Your task to perform on an android device: Go to CNN.com Image 0: 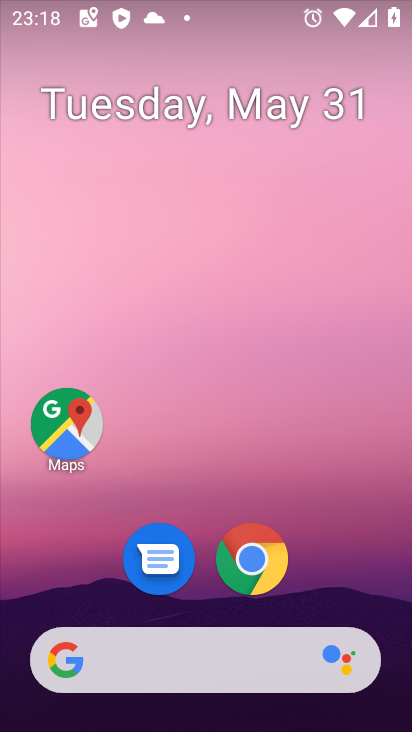
Step 0: drag from (308, 582) to (338, 38)
Your task to perform on an android device: Go to CNN.com Image 1: 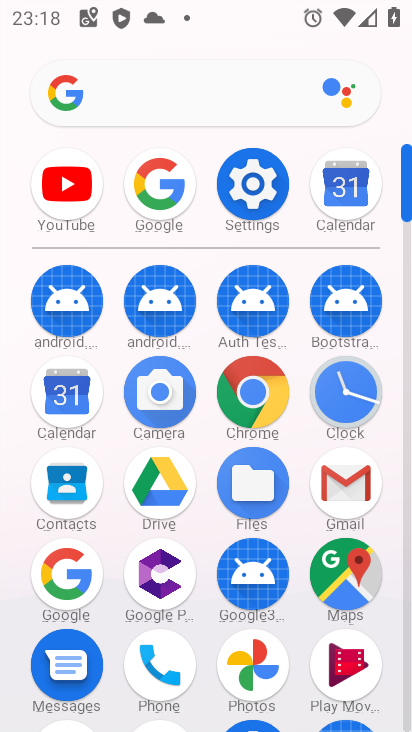
Step 1: click (164, 179)
Your task to perform on an android device: Go to CNN.com Image 2: 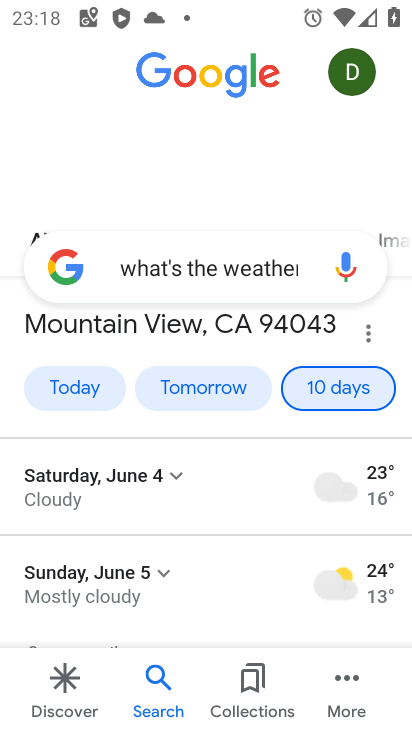
Step 2: click (277, 272)
Your task to perform on an android device: Go to CNN.com Image 3: 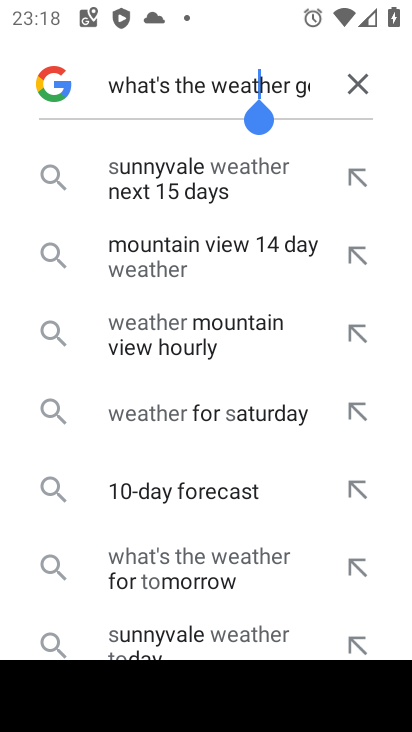
Step 3: click (352, 86)
Your task to perform on an android device: Go to CNN.com Image 4: 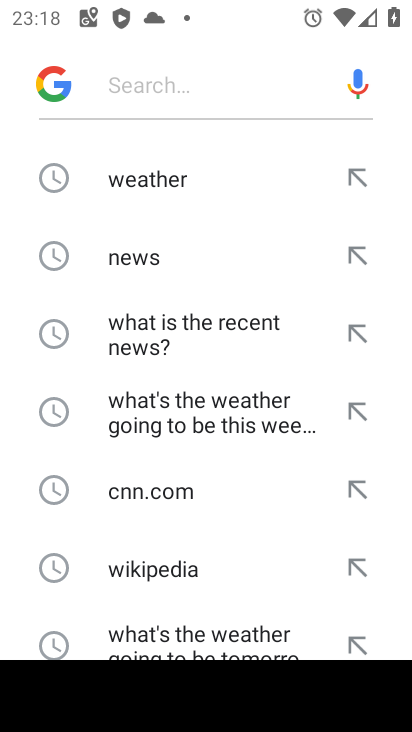
Step 4: click (163, 490)
Your task to perform on an android device: Go to CNN.com Image 5: 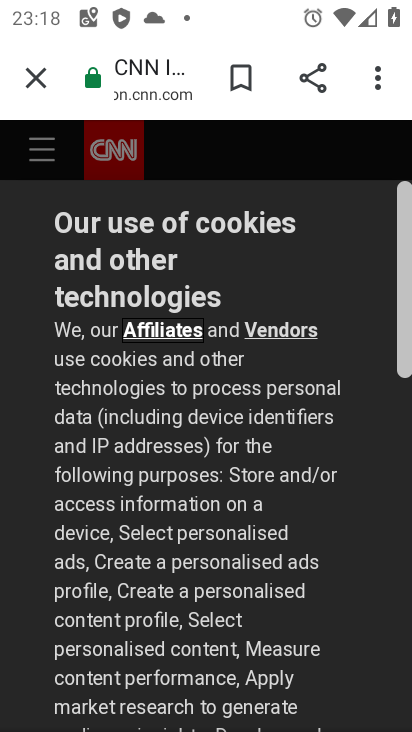
Step 5: task complete